Your task to perform on an android device: delete location history Image 0: 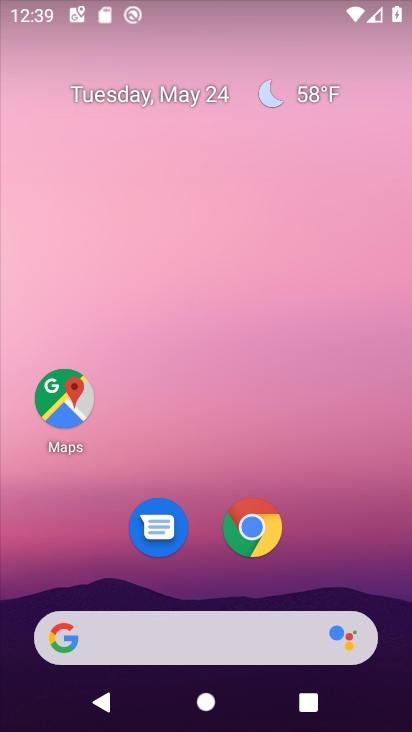
Step 0: drag from (339, 578) to (310, 198)
Your task to perform on an android device: delete location history Image 1: 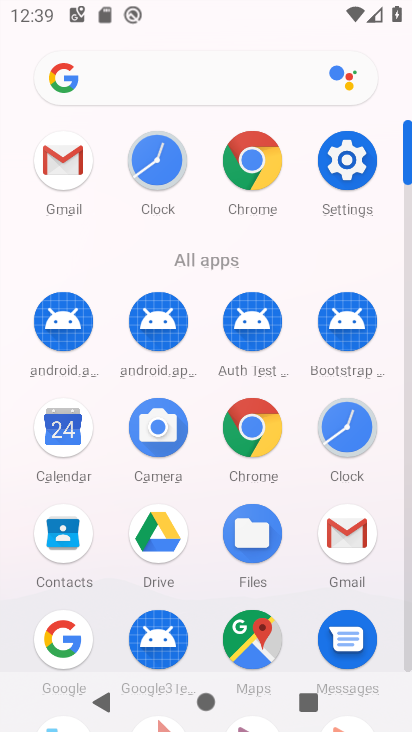
Step 1: click (264, 645)
Your task to perform on an android device: delete location history Image 2: 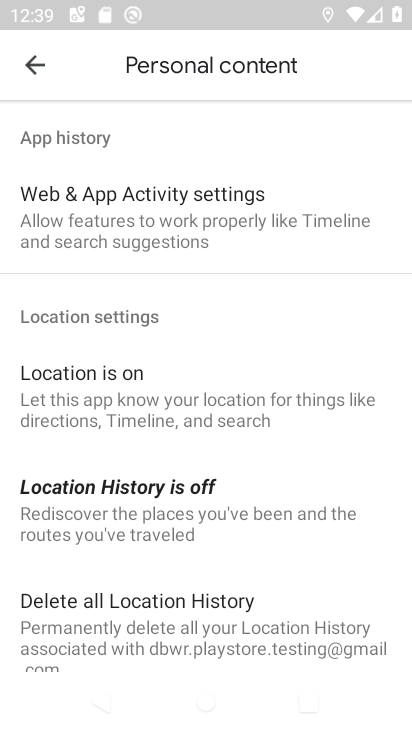
Step 2: click (214, 621)
Your task to perform on an android device: delete location history Image 3: 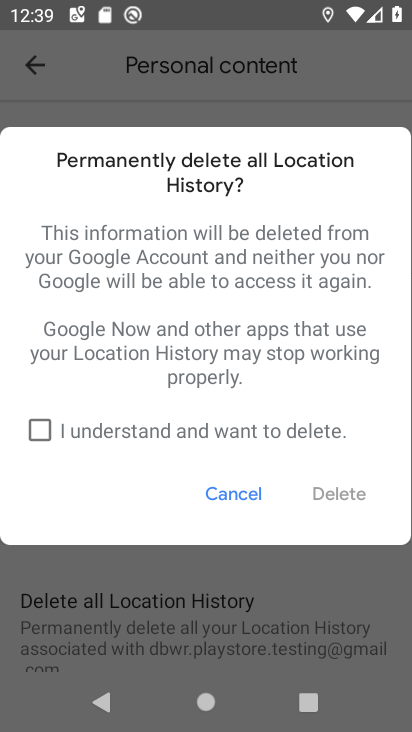
Step 3: click (205, 420)
Your task to perform on an android device: delete location history Image 4: 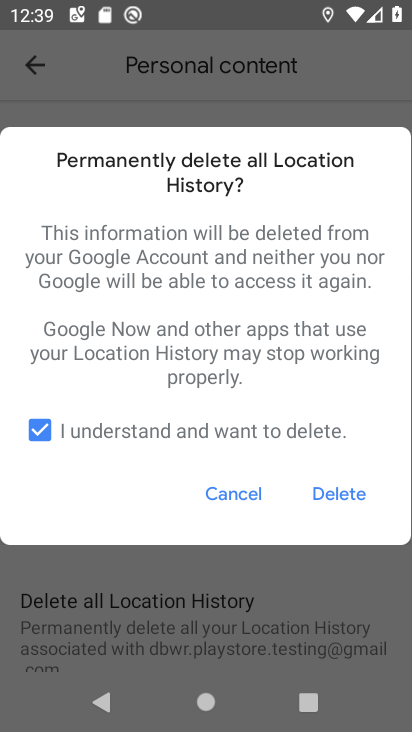
Step 4: click (328, 508)
Your task to perform on an android device: delete location history Image 5: 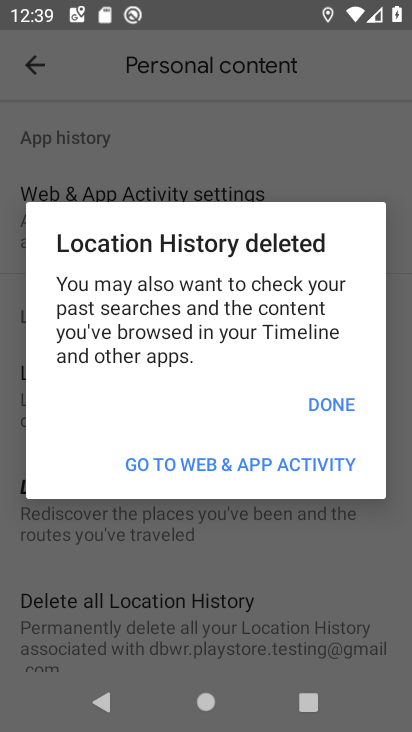
Step 5: click (343, 392)
Your task to perform on an android device: delete location history Image 6: 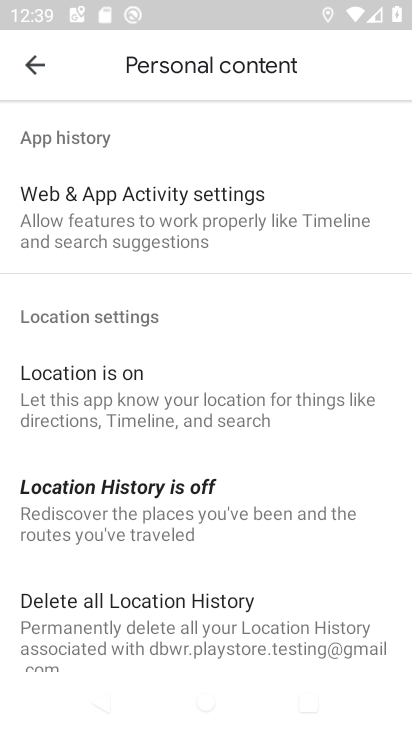
Step 6: task complete